Your task to perform on an android device: install app "Pandora - Music & Podcasts" Image 0: 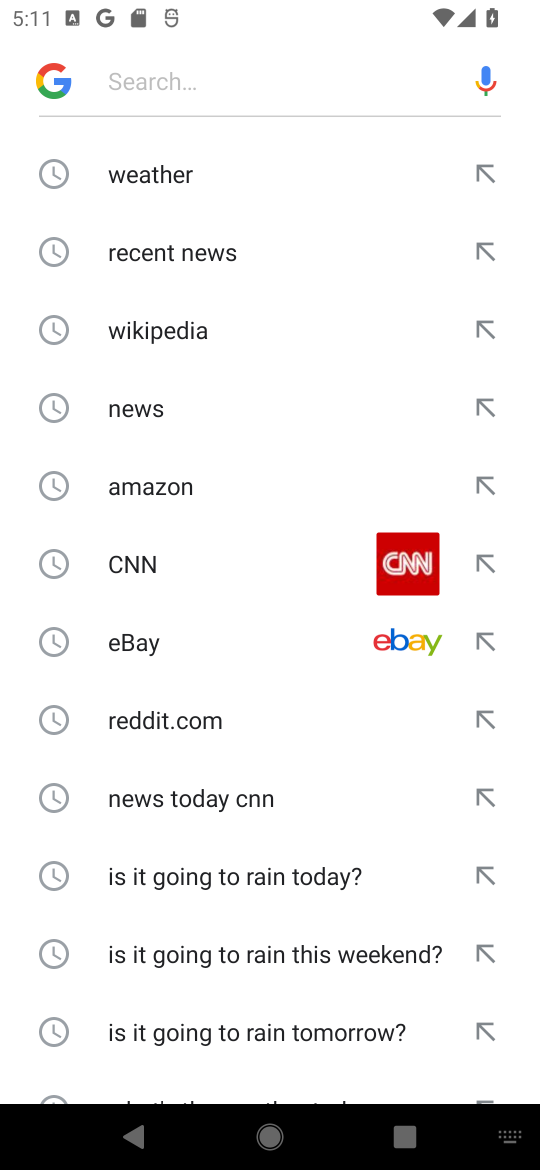
Step 0: press home button
Your task to perform on an android device: install app "Pandora - Music & Podcasts" Image 1: 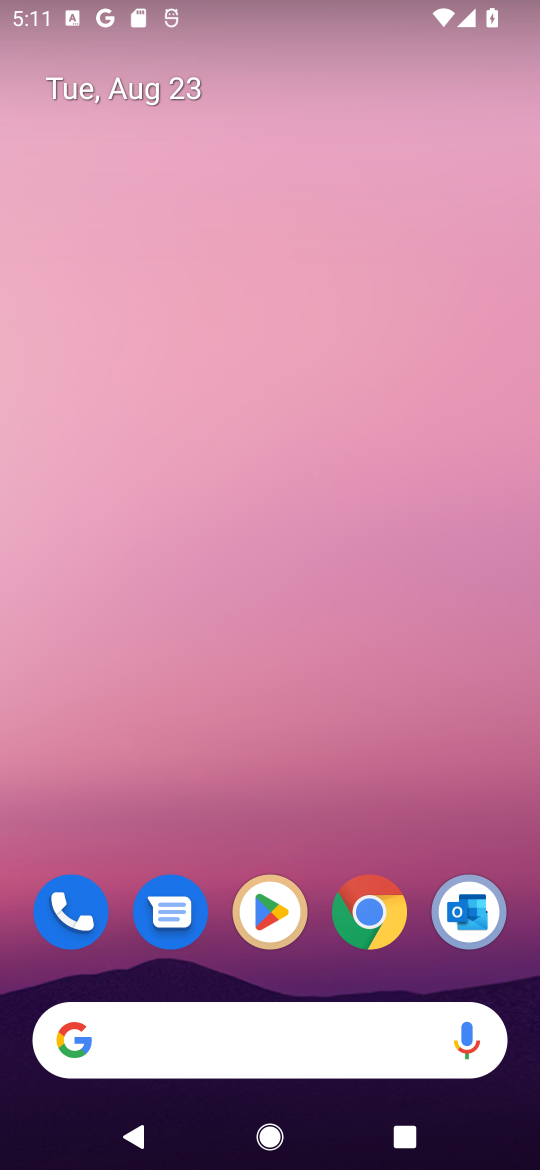
Step 1: click (269, 905)
Your task to perform on an android device: install app "Pandora - Music & Podcasts" Image 2: 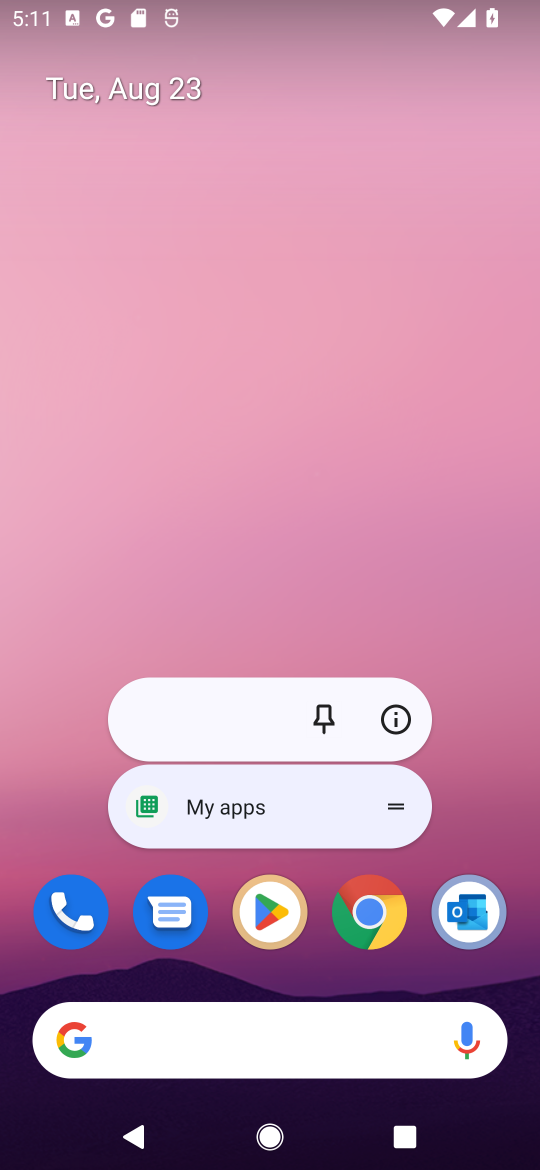
Step 2: click (269, 905)
Your task to perform on an android device: install app "Pandora - Music & Podcasts" Image 3: 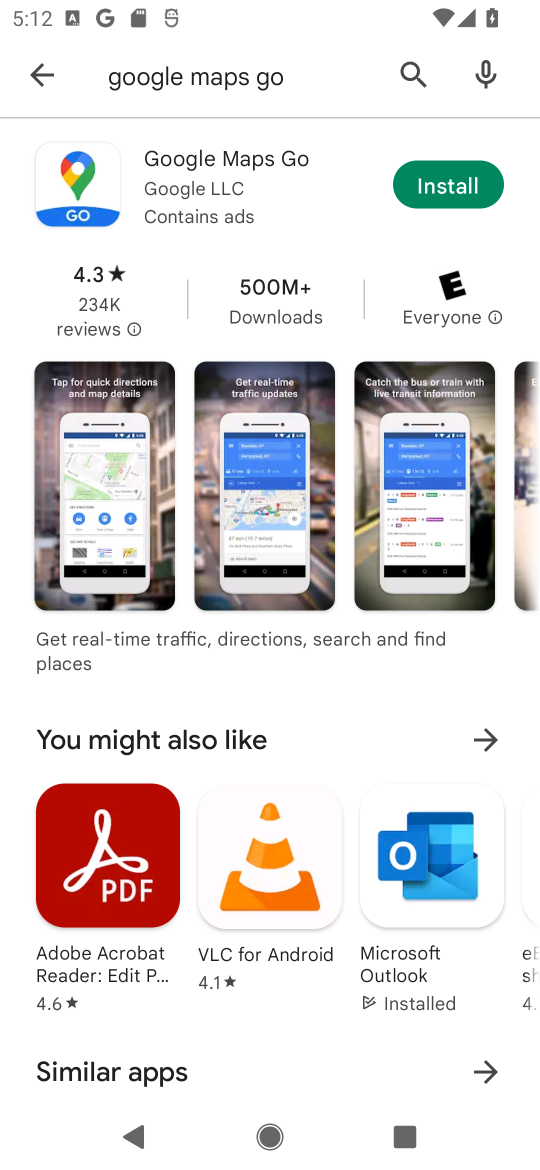
Step 3: click (21, 78)
Your task to perform on an android device: install app "Pandora - Music & Podcasts" Image 4: 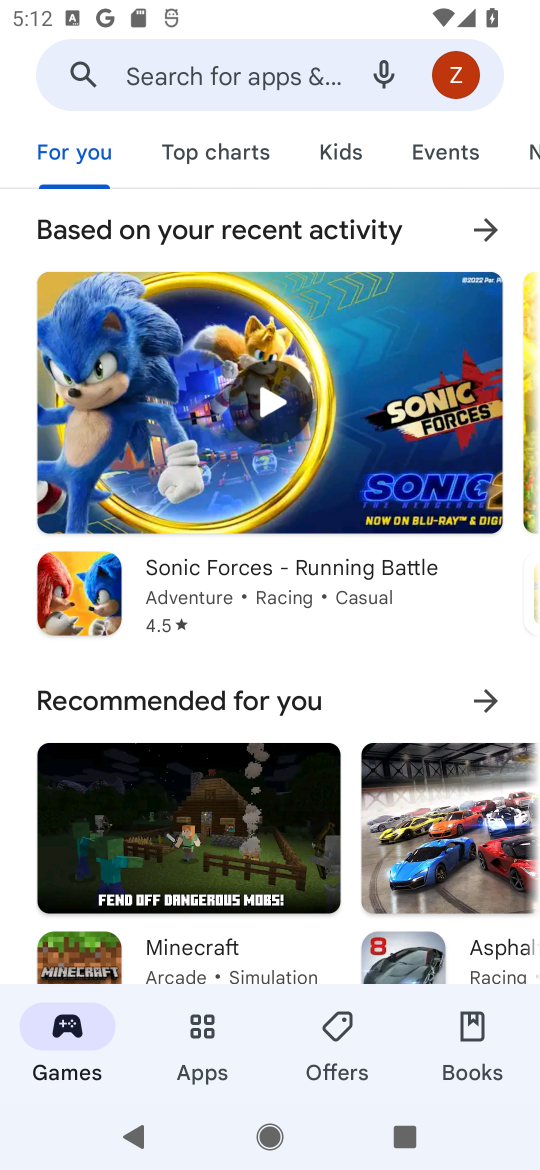
Step 4: click (195, 69)
Your task to perform on an android device: install app "Pandora - Music & Podcasts" Image 5: 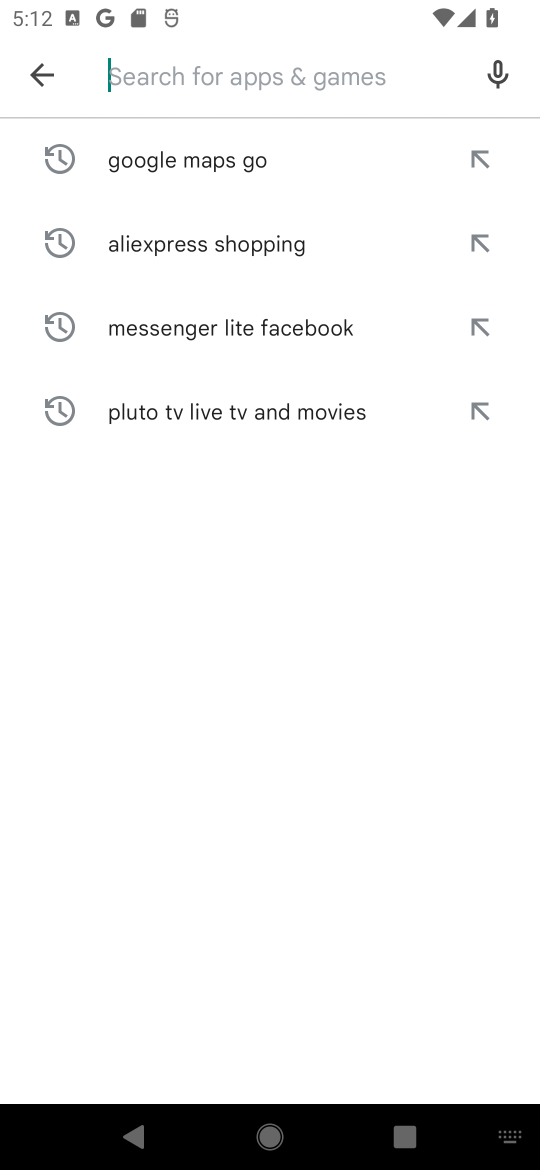
Step 5: type "Pandora  "
Your task to perform on an android device: install app "Pandora - Music & Podcasts" Image 6: 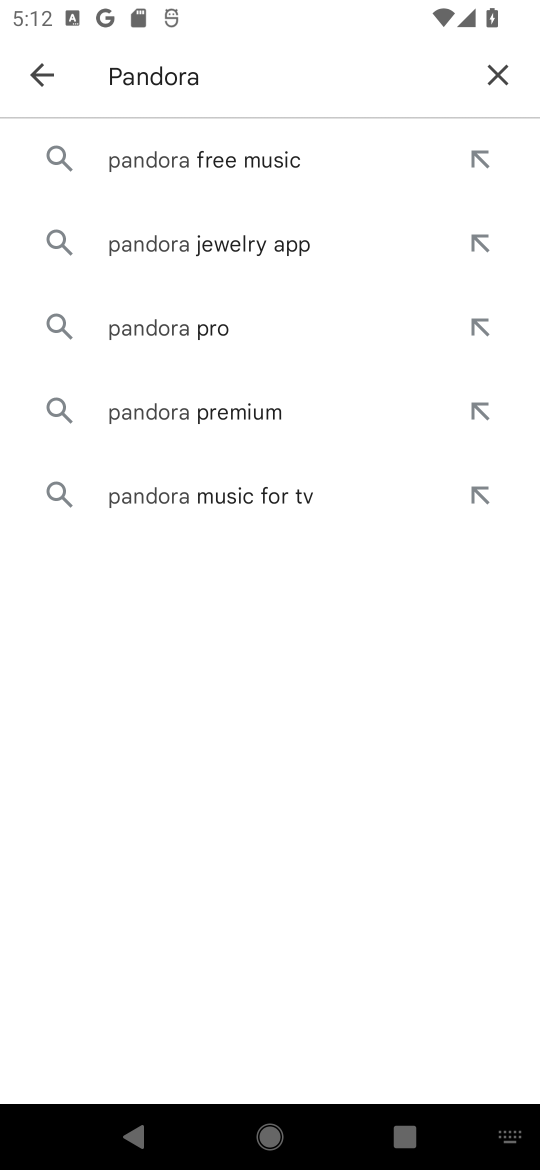
Step 6: click (173, 167)
Your task to perform on an android device: install app "Pandora - Music & Podcasts" Image 7: 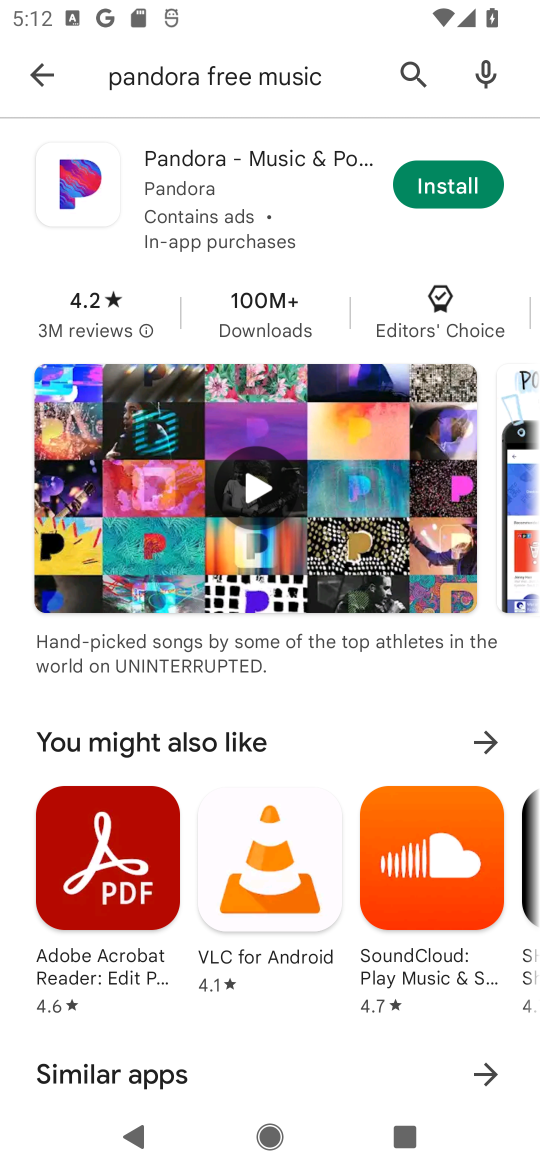
Step 7: click (467, 174)
Your task to perform on an android device: install app "Pandora - Music & Podcasts" Image 8: 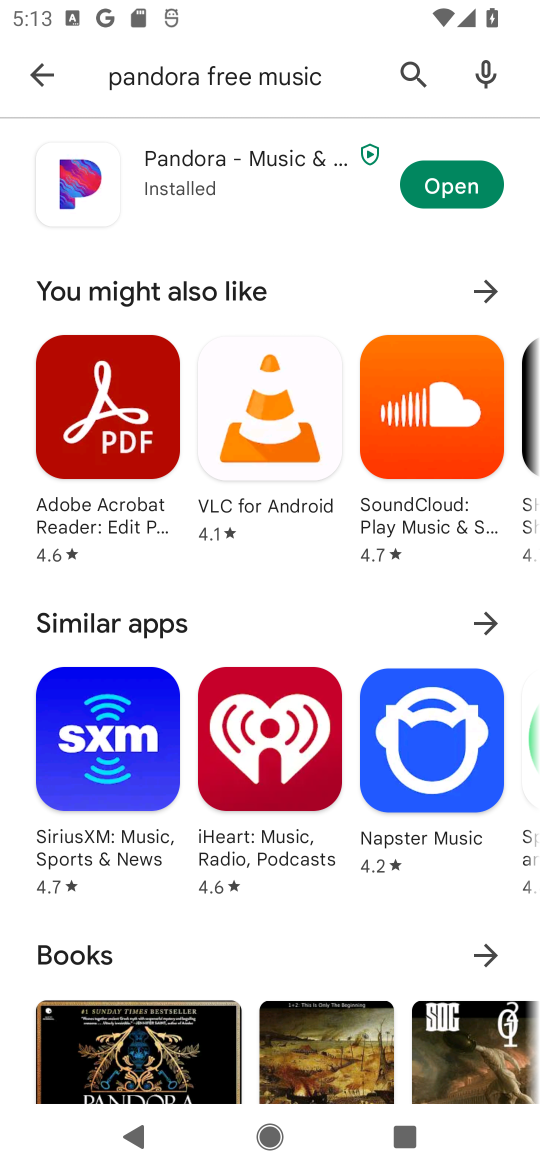
Step 8: click (461, 170)
Your task to perform on an android device: install app "Pandora - Music & Podcasts" Image 9: 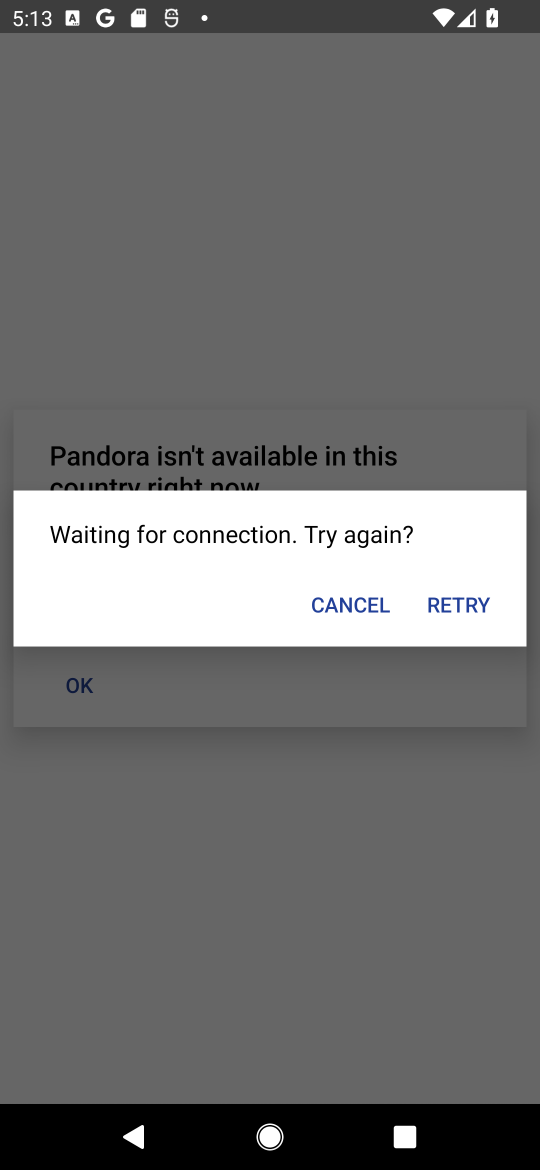
Step 9: task complete